Your task to perform on an android device: What's the weather going to be this weekend? Image 0: 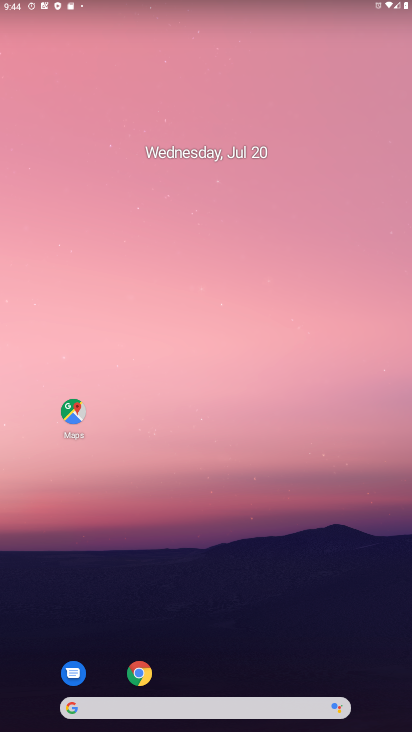
Step 0: drag from (214, 725) to (199, 265)
Your task to perform on an android device: What's the weather going to be this weekend? Image 1: 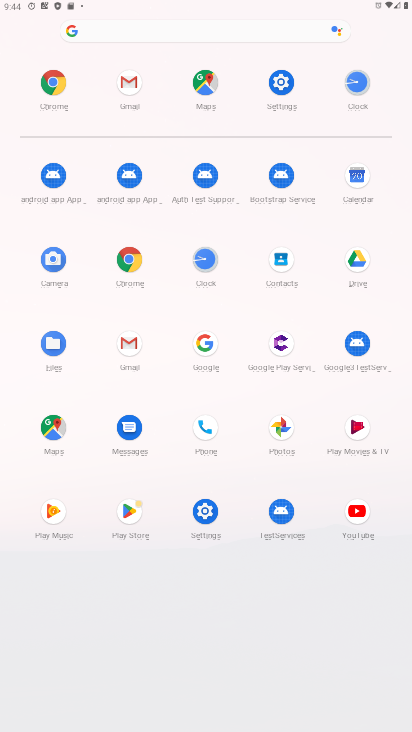
Step 1: click (203, 346)
Your task to perform on an android device: What's the weather going to be this weekend? Image 2: 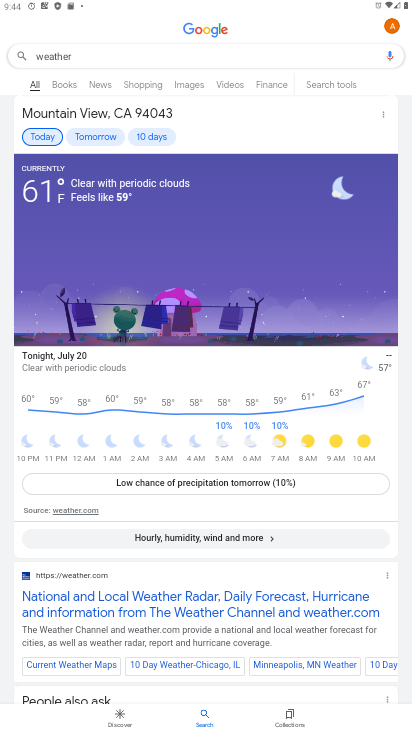
Step 2: click (149, 134)
Your task to perform on an android device: What's the weather going to be this weekend? Image 3: 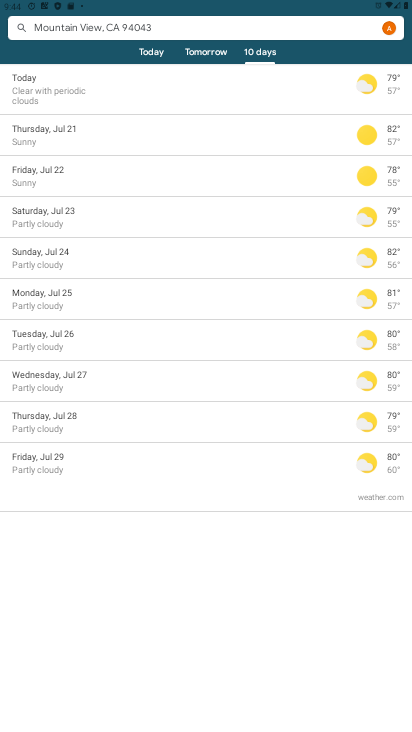
Step 3: click (78, 213)
Your task to perform on an android device: What's the weather going to be this weekend? Image 4: 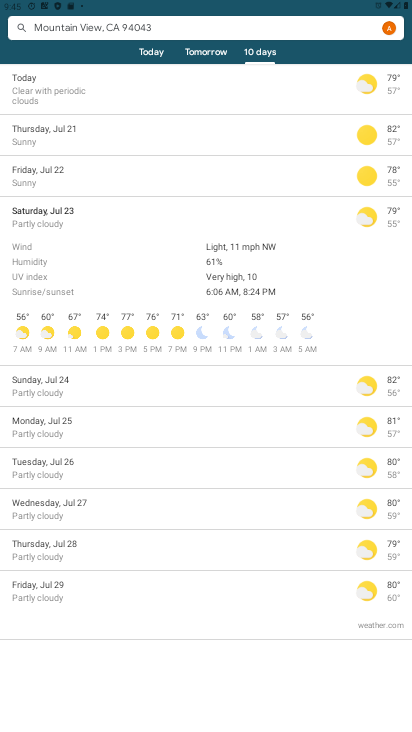
Step 4: task complete